Your task to perform on an android device: Open settings Image 0: 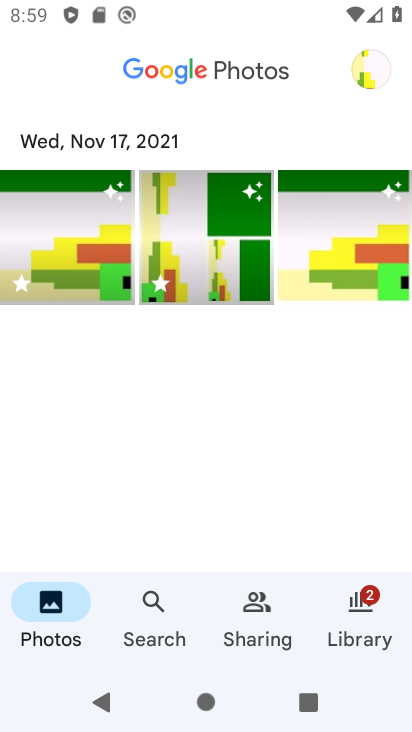
Step 0: press home button
Your task to perform on an android device: Open settings Image 1: 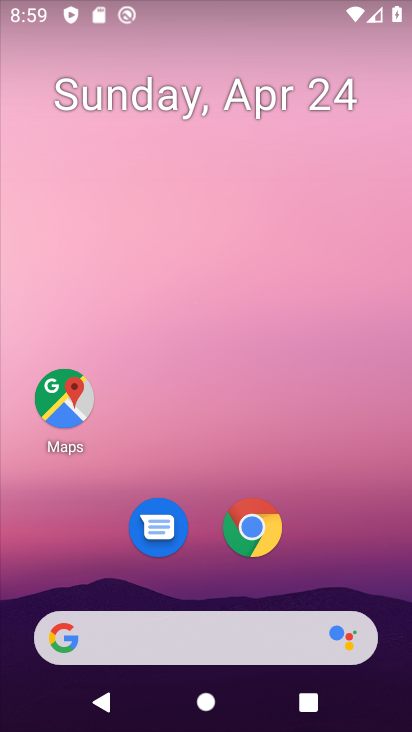
Step 1: drag from (358, 566) to (259, 116)
Your task to perform on an android device: Open settings Image 2: 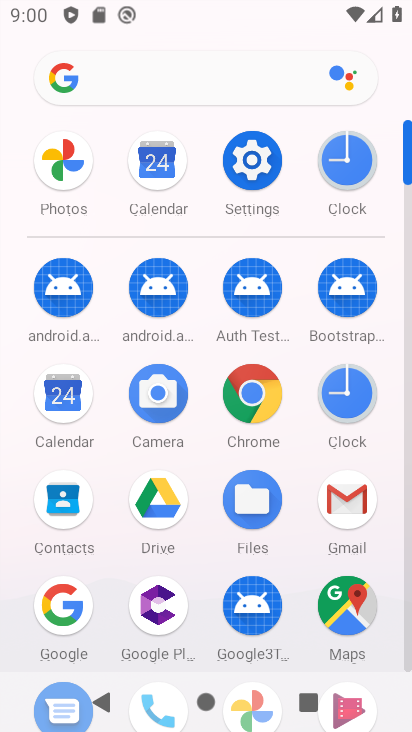
Step 2: click (262, 166)
Your task to perform on an android device: Open settings Image 3: 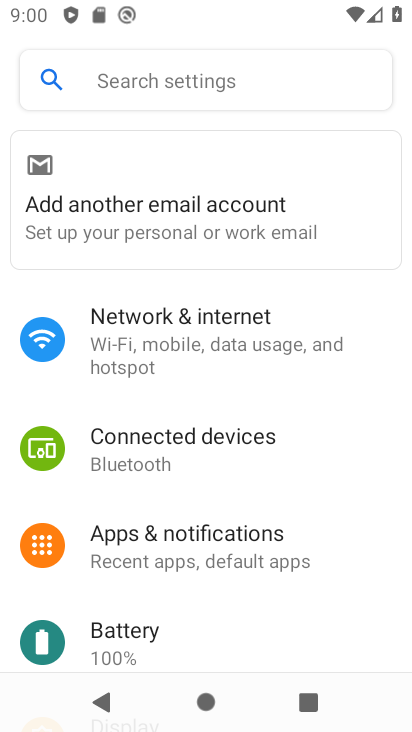
Step 3: task complete